Your task to perform on an android device: Open maps Image 0: 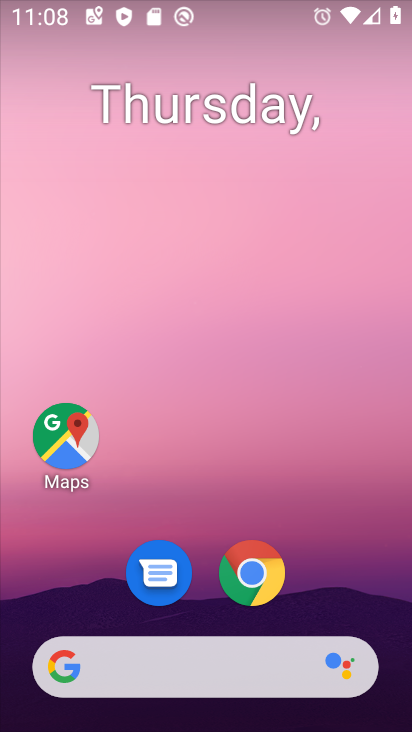
Step 0: click (75, 450)
Your task to perform on an android device: Open maps Image 1: 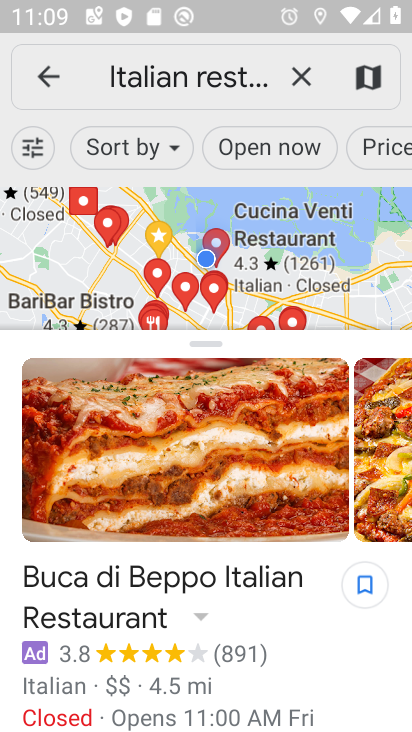
Step 1: task complete